Your task to perform on an android device: visit the assistant section in the google photos Image 0: 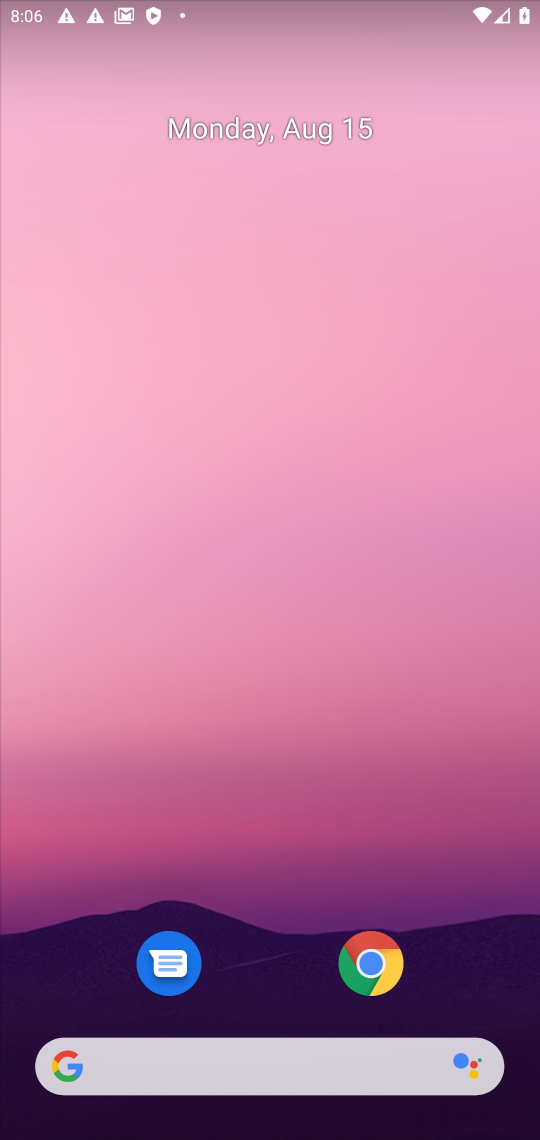
Step 0: drag from (257, 1001) to (186, 25)
Your task to perform on an android device: visit the assistant section in the google photos Image 1: 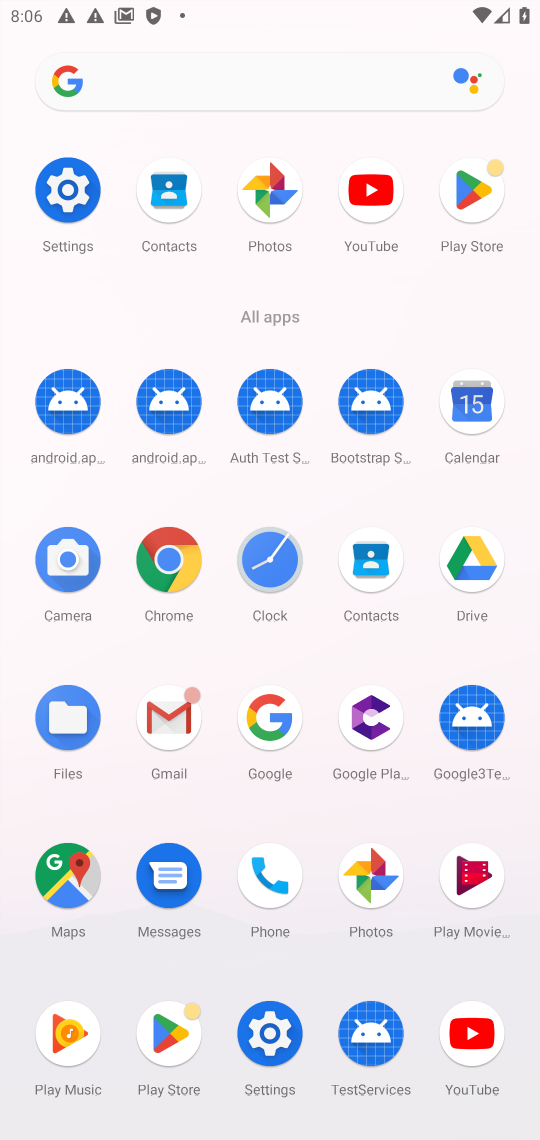
Step 1: click (255, 208)
Your task to perform on an android device: visit the assistant section in the google photos Image 2: 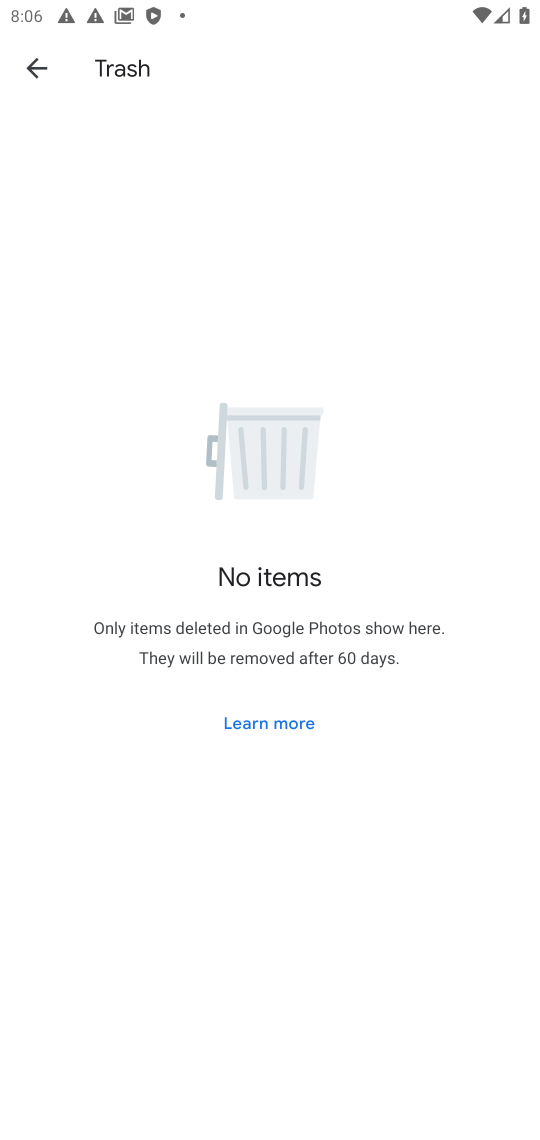
Step 2: click (52, 66)
Your task to perform on an android device: visit the assistant section in the google photos Image 3: 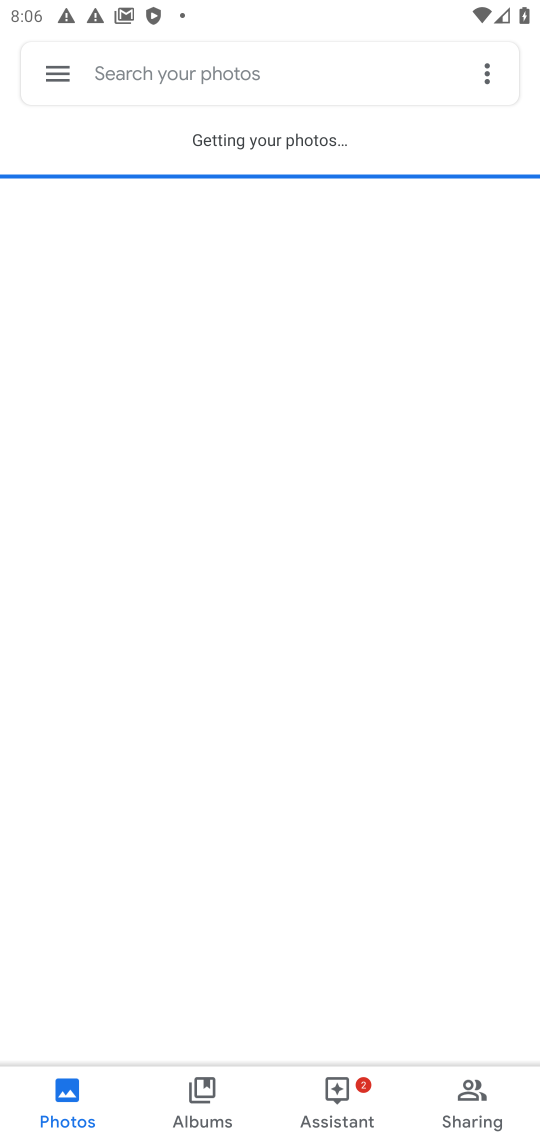
Step 3: click (337, 1109)
Your task to perform on an android device: visit the assistant section in the google photos Image 4: 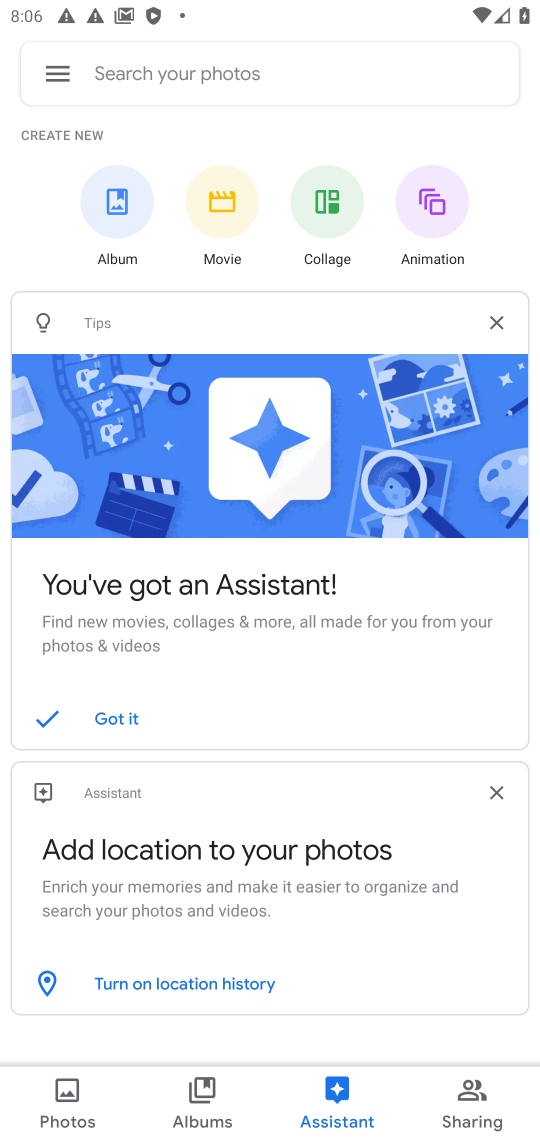
Step 4: task complete